Your task to perform on an android device: Open my contact list Image 0: 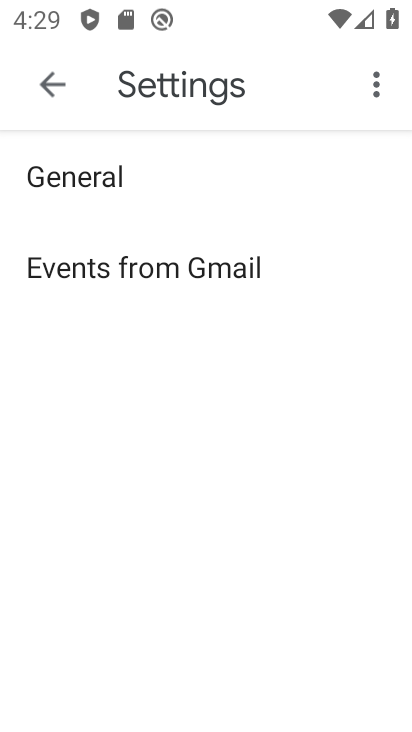
Step 0: press home button
Your task to perform on an android device: Open my contact list Image 1: 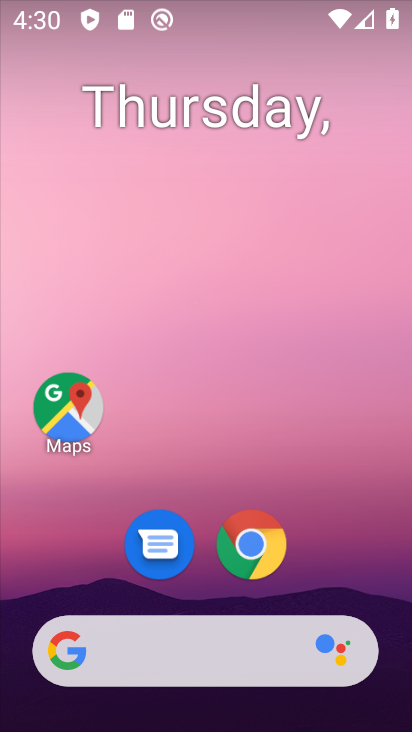
Step 1: drag from (267, 424) to (310, 133)
Your task to perform on an android device: Open my contact list Image 2: 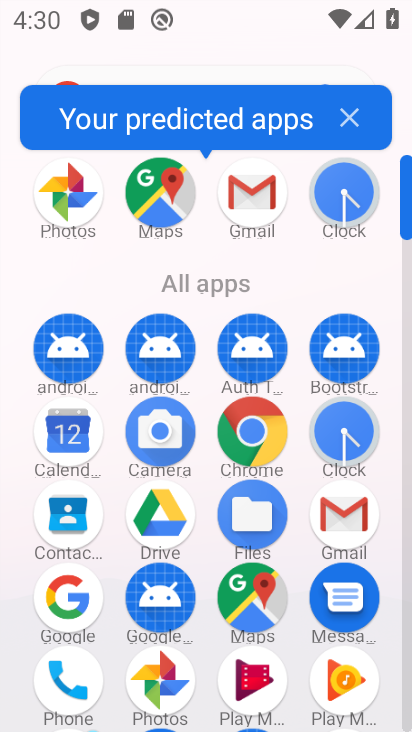
Step 2: click (65, 530)
Your task to perform on an android device: Open my contact list Image 3: 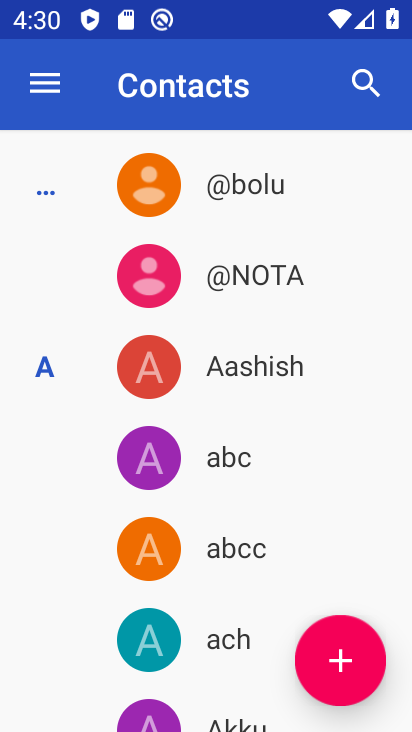
Step 3: task complete